Your task to perform on an android device: change the upload size in google photos Image 0: 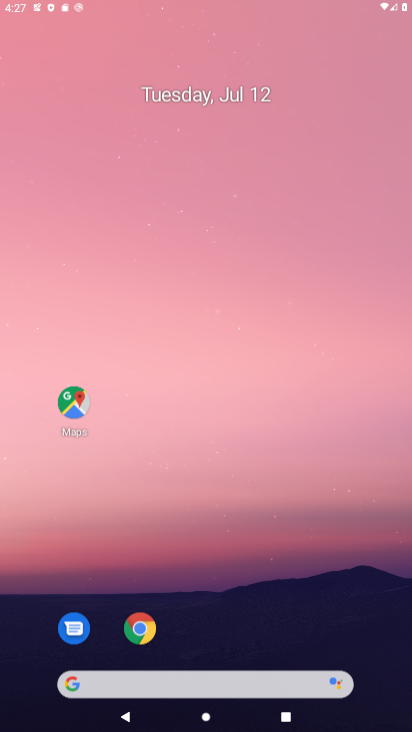
Step 0: press home button
Your task to perform on an android device: change the upload size in google photos Image 1: 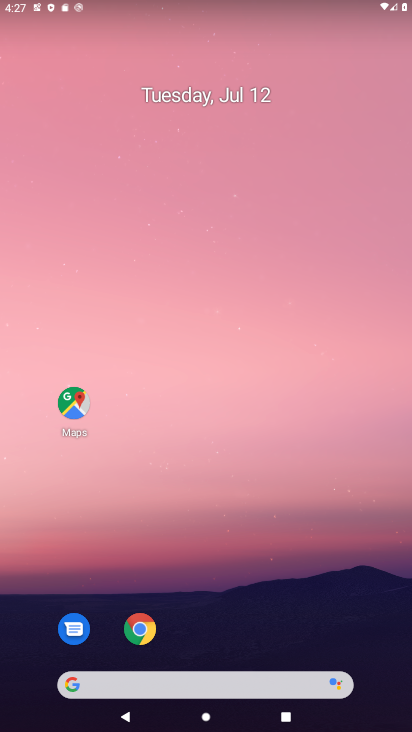
Step 1: drag from (272, 604) to (287, 89)
Your task to perform on an android device: change the upload size in google photos Image 2: 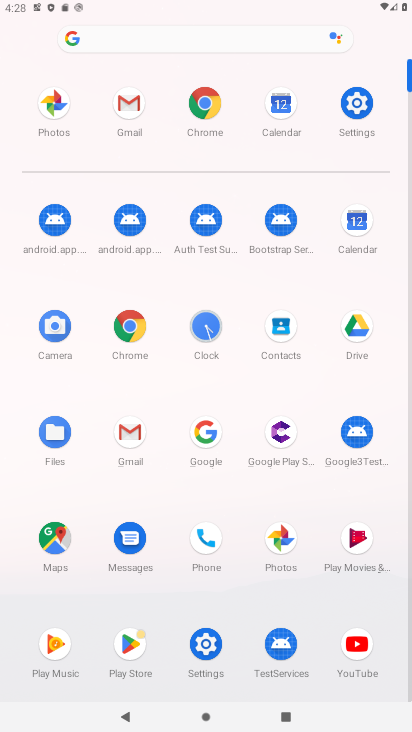
Step 2: click (276, 534)
Your task to perform on an android device: change the upload size in google photos Image 3: 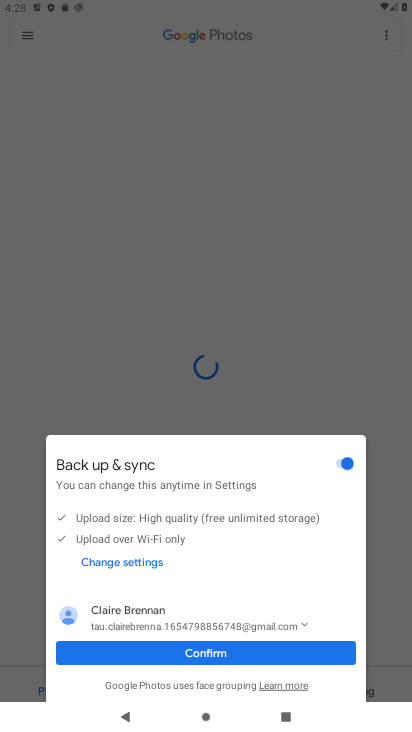
Step 3: click (203, 649)
Your task to perform on an android device: change the upload size in google photos Image 4: 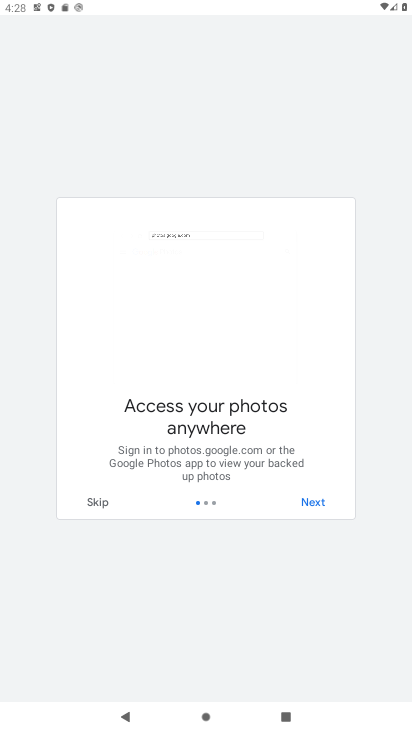
Step 4: click (95, 505)
Your task to perform on an android device: change the upload size in google photos Image 5: 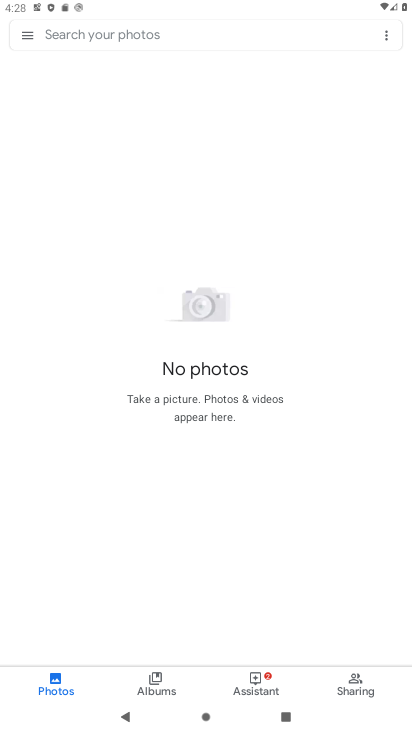
Step 5: click (23, 34)
Your task to perform on an android device: change the upload size in google photos Image 6: 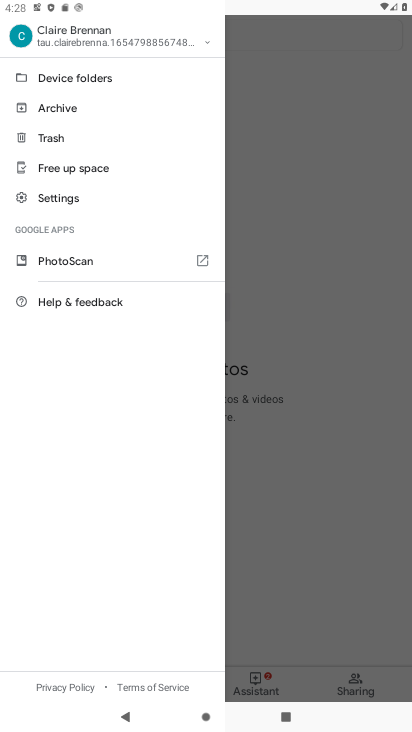
Step 6: click (53, 200)
Your task to perform on an android device: change the upload size in google photos Image 7: 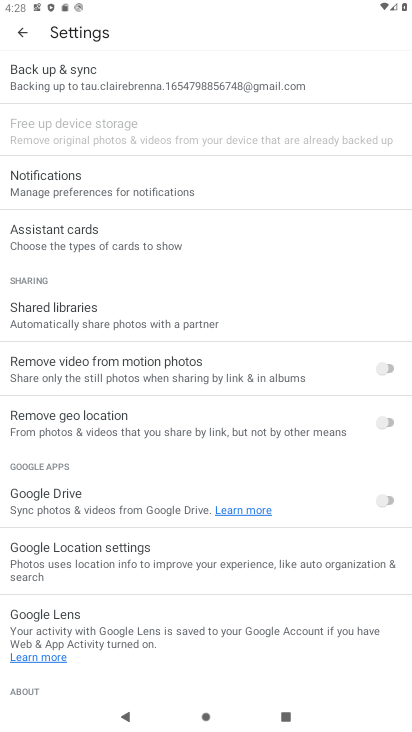
Step 7: click (74, 71)
Your task to perform on an android device: change the upload size in google photos Image 8: 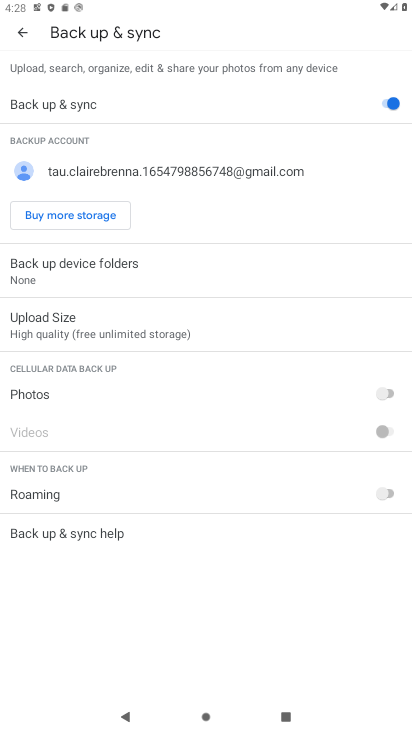
Step 8: click (55, 320)
Your task to perform on an android device: change the upload size in google photos Image 9: 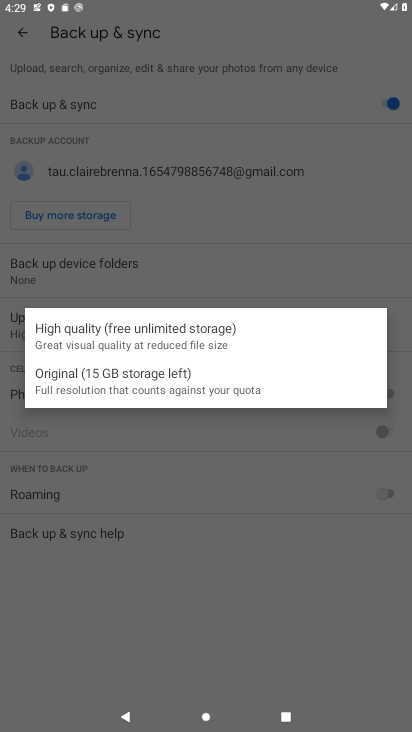
Step 9: click (80, 377)
Your task to perform on an android device: change the upload size in google photos Image 10: 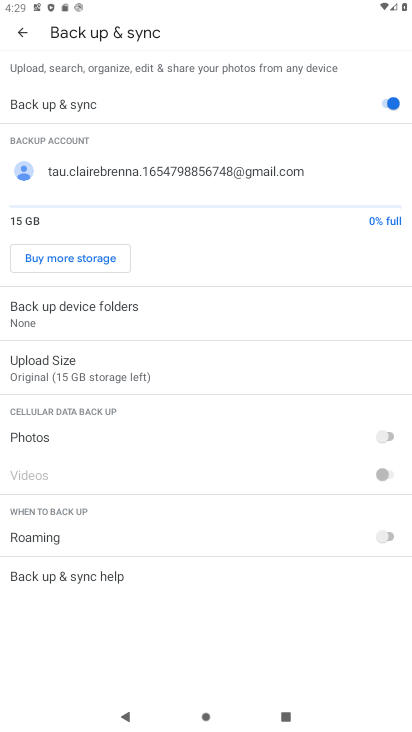
Step 10: task complete